Your task to perform on an android device: Search for vegetarian restaurants on Maps Image 0: 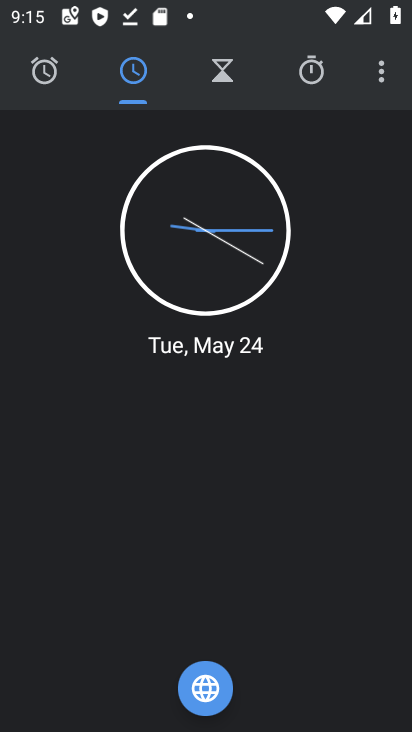
Step 0: press back button
Your task to perform on an android device: Search for vegetarian restaurants on Maps Image 1: 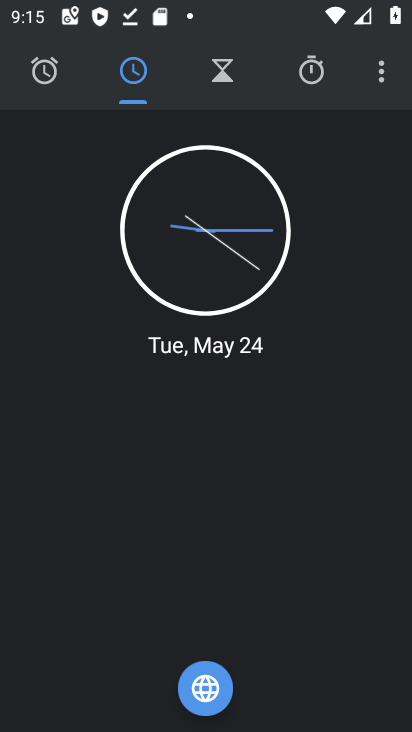
Step 1: press back button
Your task to perform on an android device: Search for vegetarian restaurants on Maps Image 2: 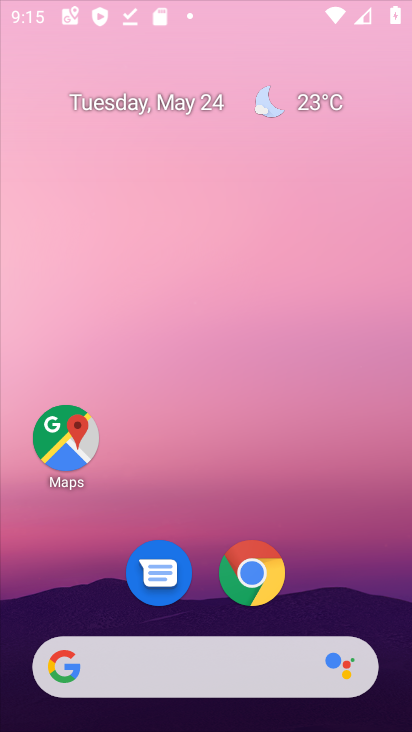
Step 2: press back button
Your task to perform on an android device: Search for vegetarian restaurants on Maps Image 3: 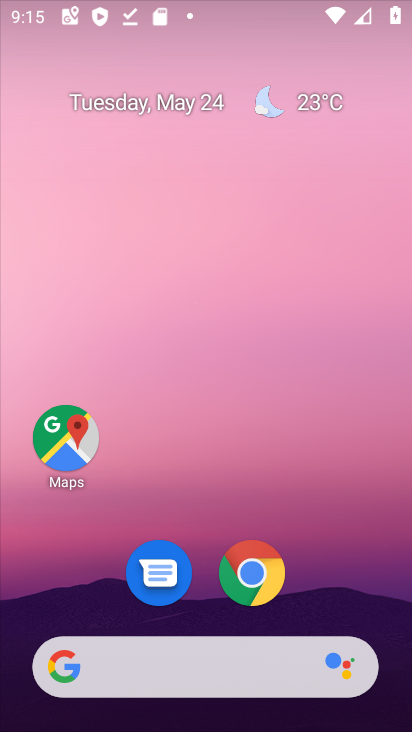
Step 3: press back button
Your task to perform on an android device: Search for vegetarian restaurants on Maps Image 4: 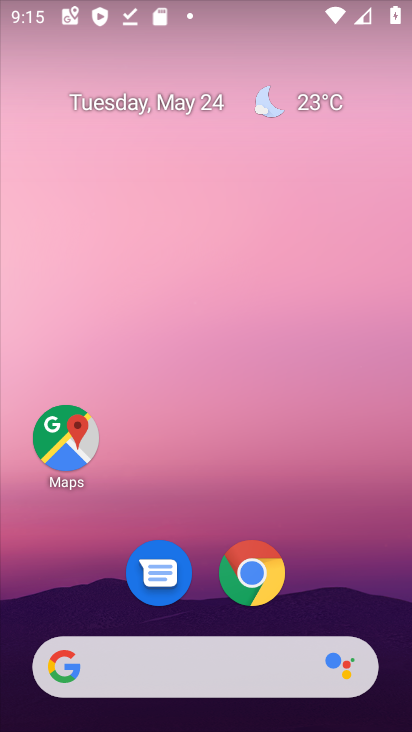
Step 4: drag from (264, 698) to (253, 224)
Your task to perform on an android device: Search for vegetarian restaurants on Maps Image 5: 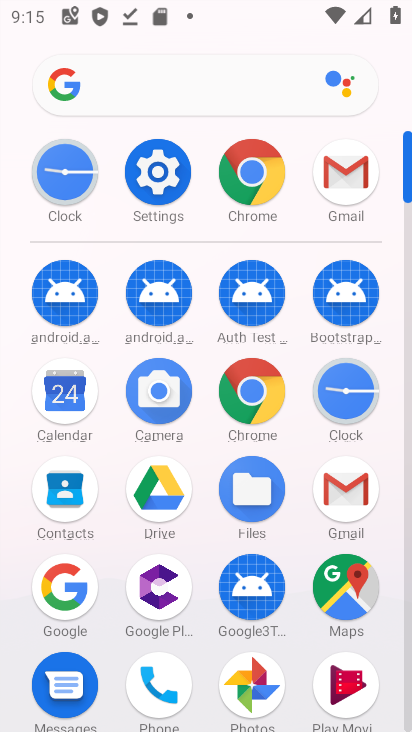
Step 5: click (342, 590)
Your task to perform on an android device: Search for vegetarian restaurants on Maps Image 6: 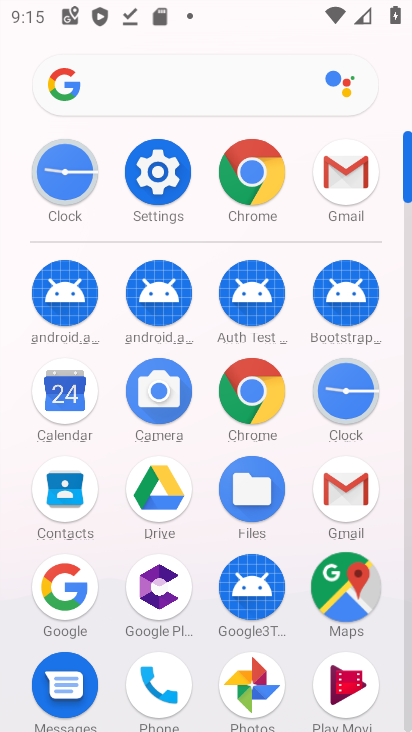
Step 6: click (343, 589)
Your task to perform on an android device: Search for vegetarian restaurants on Maps Image 7: 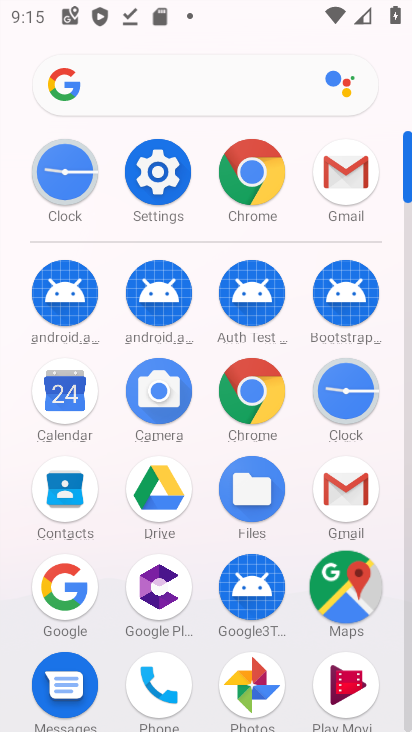
Step 7: click (347, 586)
Your task to perform on an android device: Search for vegetarian restaurants on Maps Image 8: 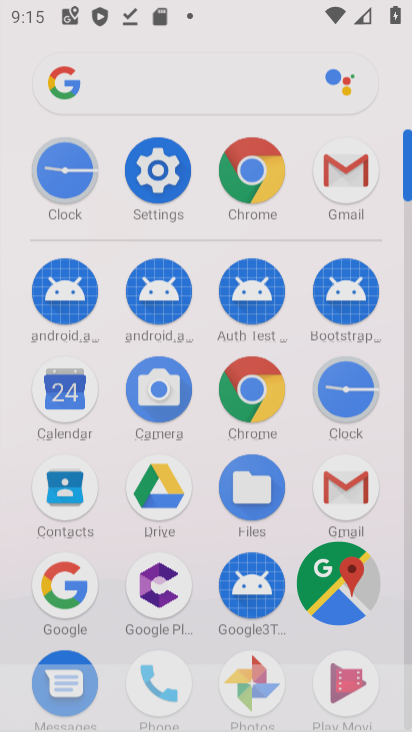
Step 8: click (348, 585)
Your task to perform on an android device: Search for vegetarian restaurants on Maps Image 9: 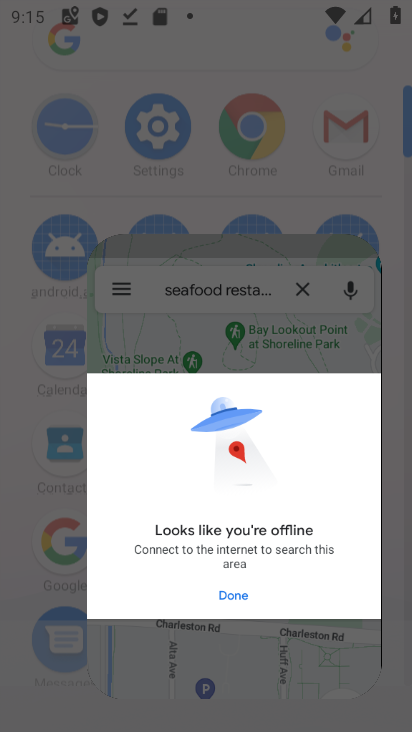
Step 9: click (349, 585)
Your task to perform on an android device: Search for vegetarian restaurants on Maps Image 10: 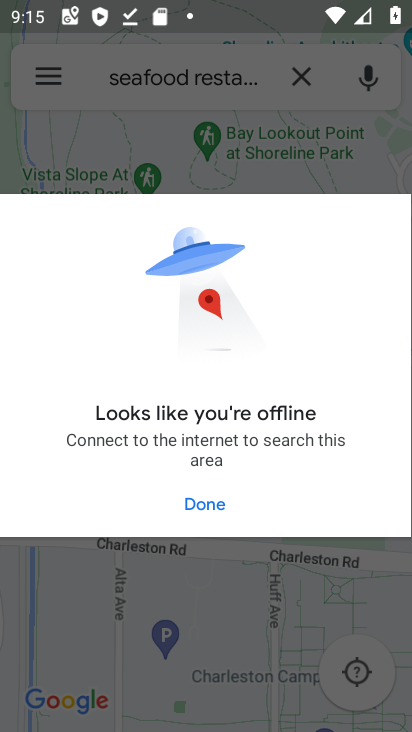
Step 10: click (351, 581)
Your task to perform on an android device: Search for vegetarian restaurants on Maps Image 11: 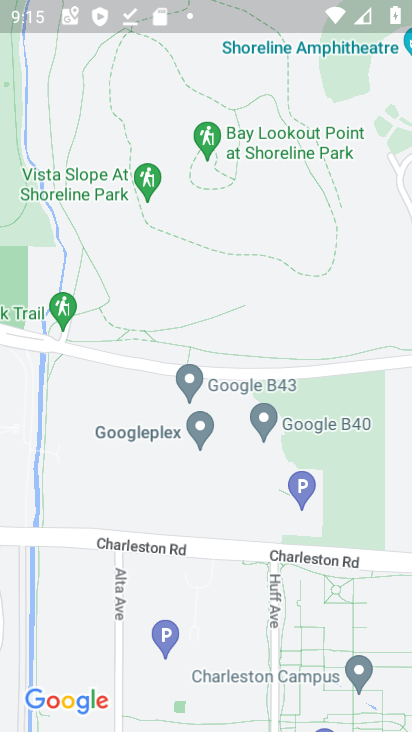
Step 11: drag from (134, 170) to (234, 666)
Your task to perform on an android device: Search for vegetarian restaurants on Maps Image 12: 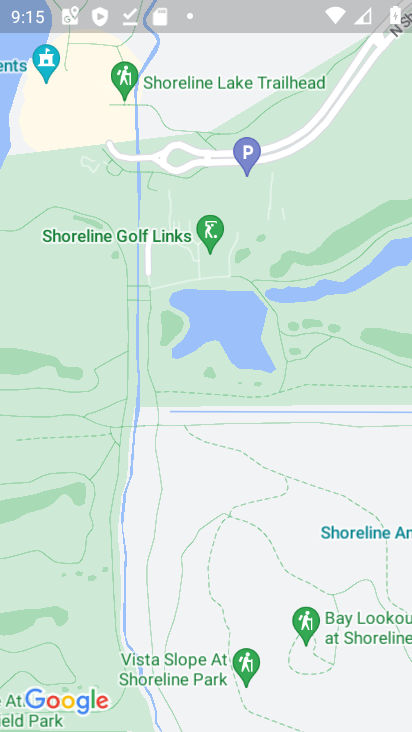
Step 12: drag from (123, 253) to (259, 583)
Your task to perform on an android device: Search for vegetarian restaurants on Maps Image 13: 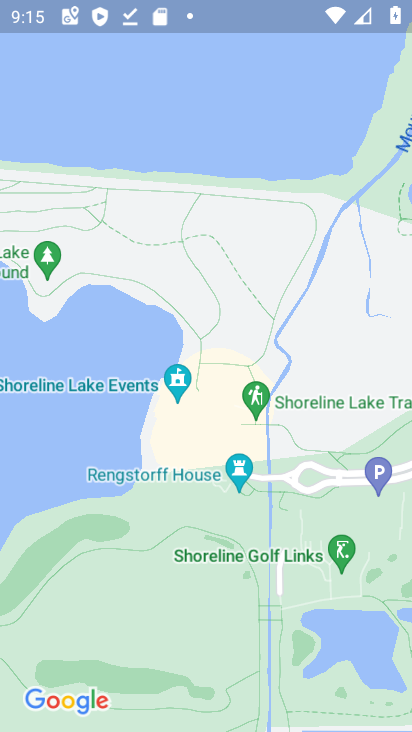
Step 13: drag from (251, 325) to (388, 711)
Your task to perform on an android device: Search for vegetarian restaurants on Maps Image 14: 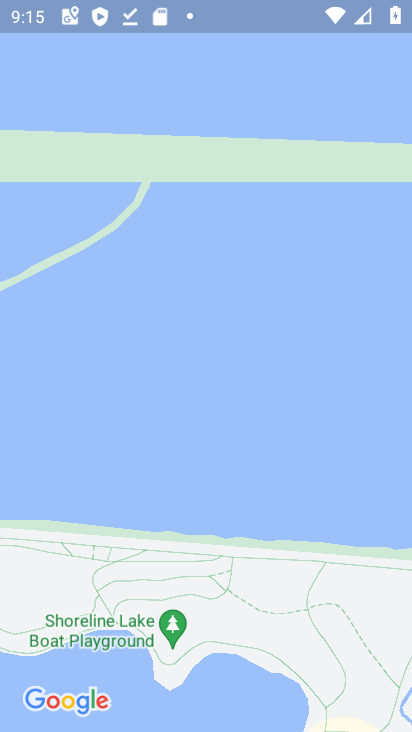
Step 14: drag from (300, 310) to (314, 521)
Your task to perform on an android device: Search for vegetarian restaurants on Maps Image 15: 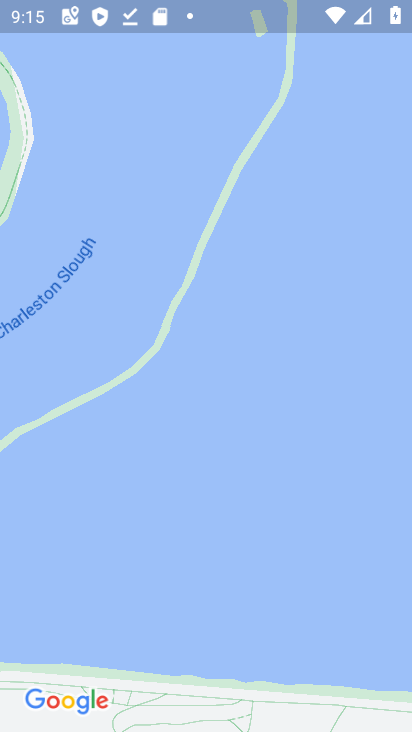
Step 15: drag from (118, 161) to (205, 478)
Your task to perform on an android device: Search for vegetarian restaurants on Maps Image 16: 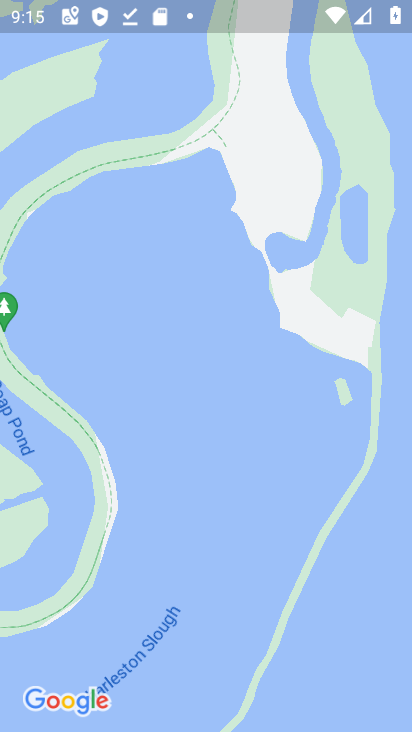
Step 16: drag from (117, 188) to (156, 449)
Your task to perform on an android device: Search for vegetarian restaurants on Maps Image 17: 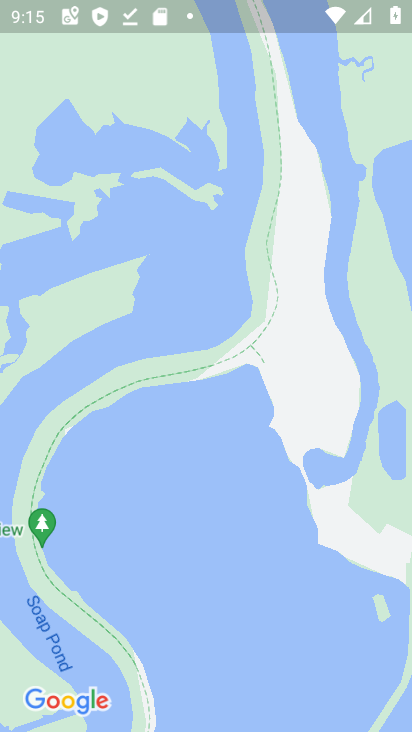
Step 17: drag from (120, 150) to (232, 563)
Your task to perform on an android device: Search for vegetarian restaurants on Maps Image 18: 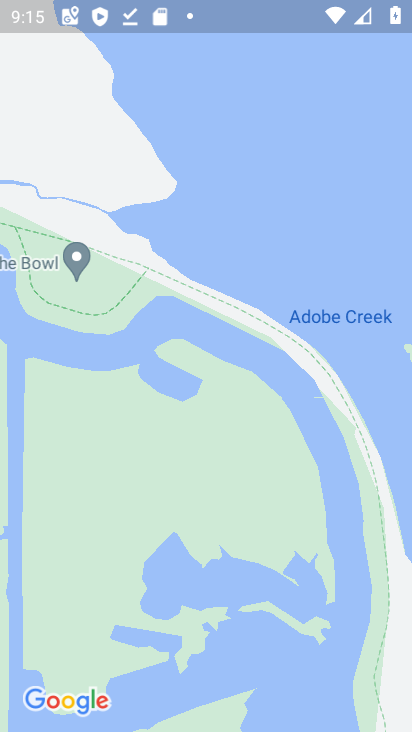
Step 18: drag from (134, 238) to (262, 564)
Your task to perform on an android device: Search for vegetarian restaurants on Maps Image 19: 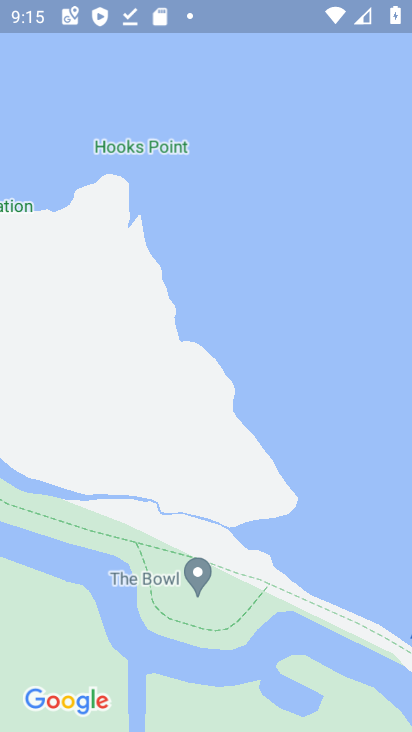
Step 19: drag from (210, 202) to (316, 649)
Your task to perform on an android device: Search for vegetarian restaurants on Maps Image 20: 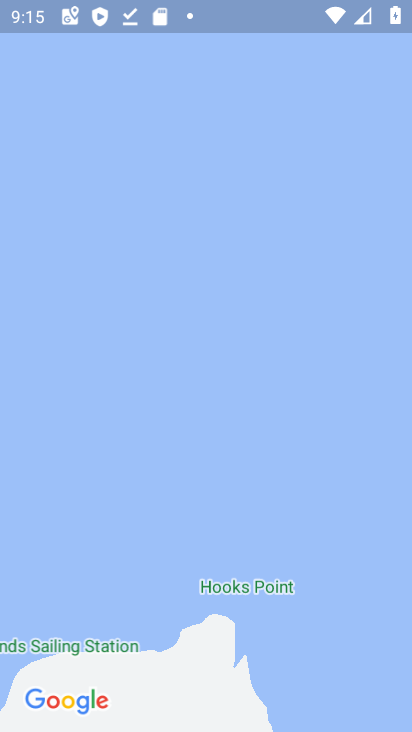
Step 20: drag from (207, 268) to (217, 627)
Your task to perform on an android device: Search for vegetarian restaurants on Maps Image 21: 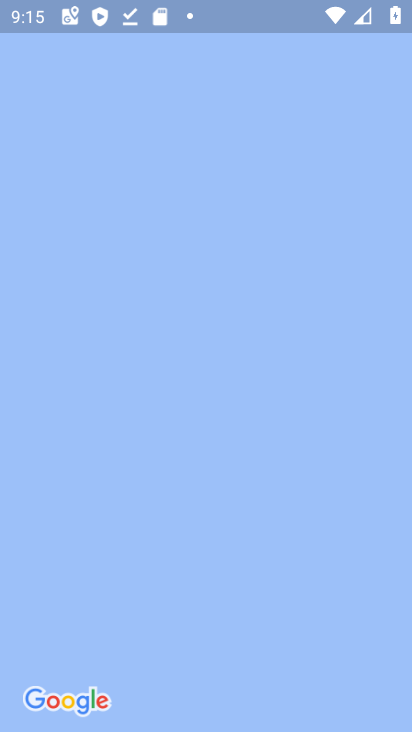
Step 21: press back button
Your task to perform on an android device: Search for vegetarian restaurants on Maps Image 22: 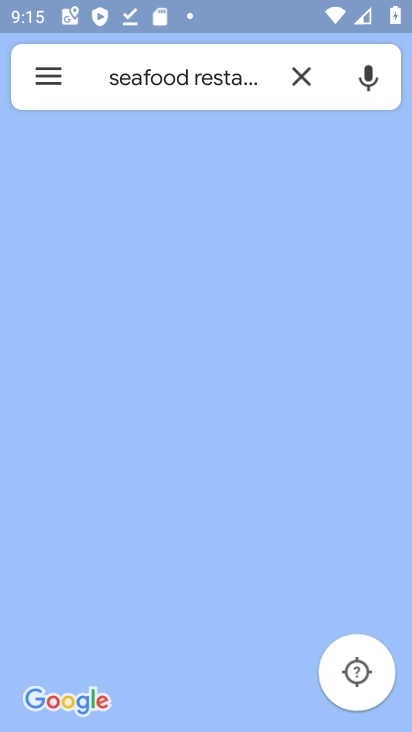
Step 22: click (107, 53)
Your task to perform on an android device: Search for vegetarian restaurants on Maps Image 23: 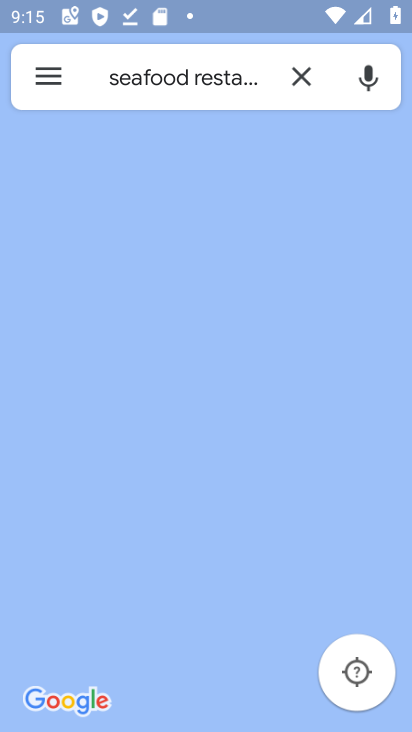
Step 23: click (120, 60)
Your task to perform on an android device: Search for vegetarian restaurants on Maps Image 24: 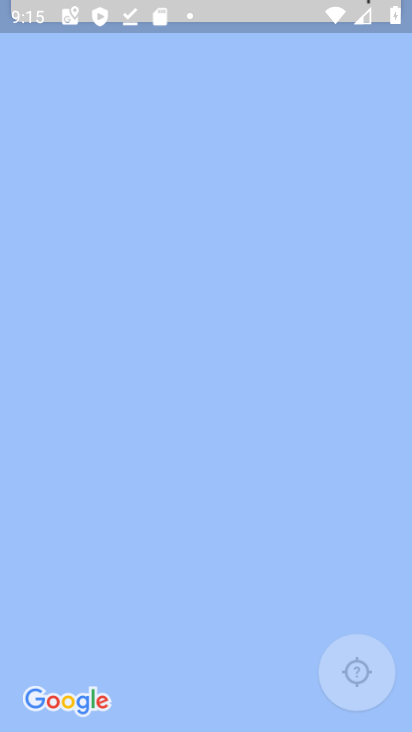
Step 24: click (125, 70)
Your task to perform on an android device: Search for vegetarian restaurants on Maps Image 25: 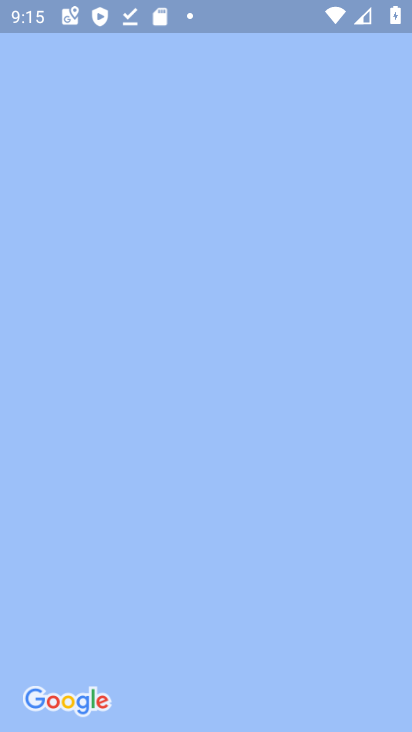
Step 25: click (125, 70)
Your task to perform on an android device: Search for vegetarian restaurants on Maps Image 26: 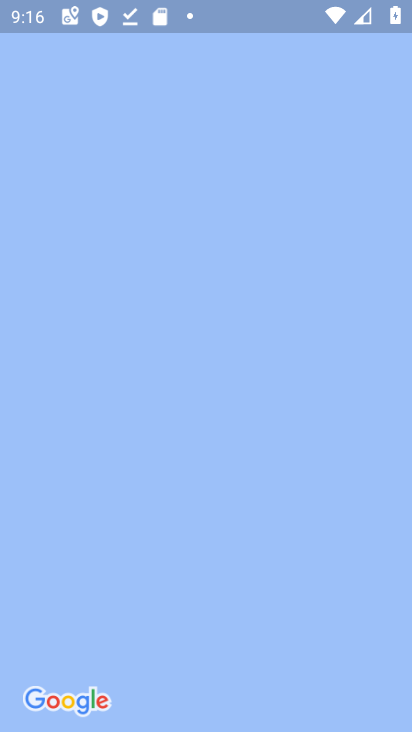
Step 26: press back button
Your task to perform on an android device: Search for vegetarian restaurants on Maps Image 27: 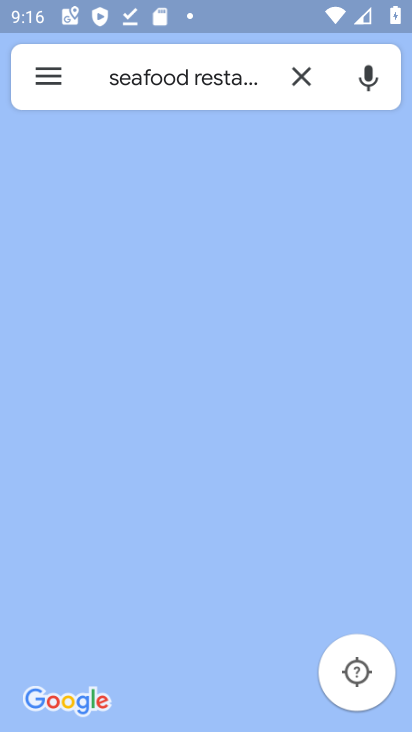
Step 27: click (98, 61)
Your task to perform on an android device: Search for vegetarian restaurants on Maps Image 28: 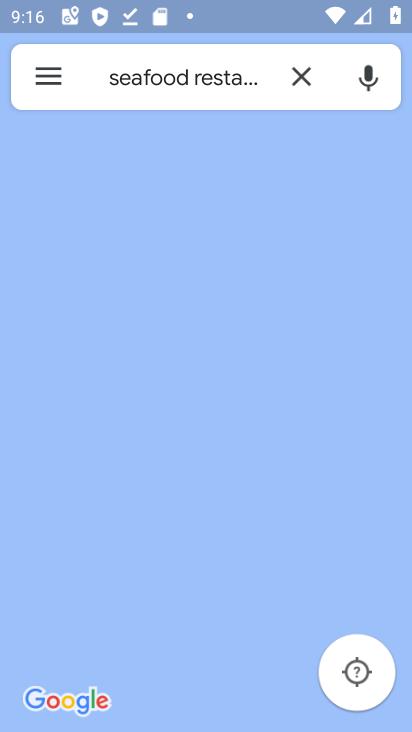
Step 28: click (131, 83)
Your task to perform on an android device: Search for vegetarian restaurants on Maps Image 29: 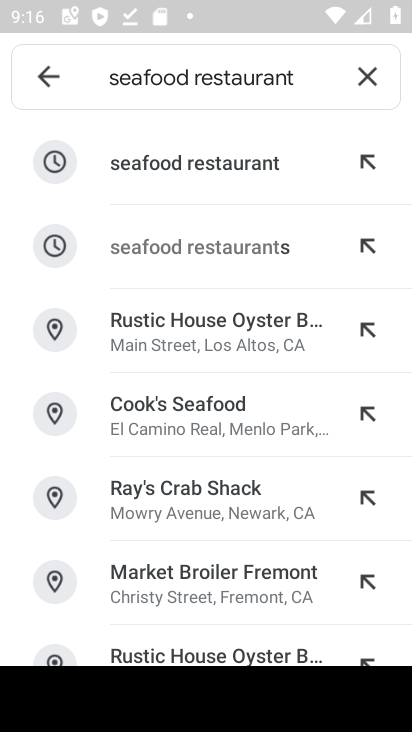
Step 29: click (366, 67)
Your task to perform on an android device: Search for vegetarian restaurants on Maps Image 30: 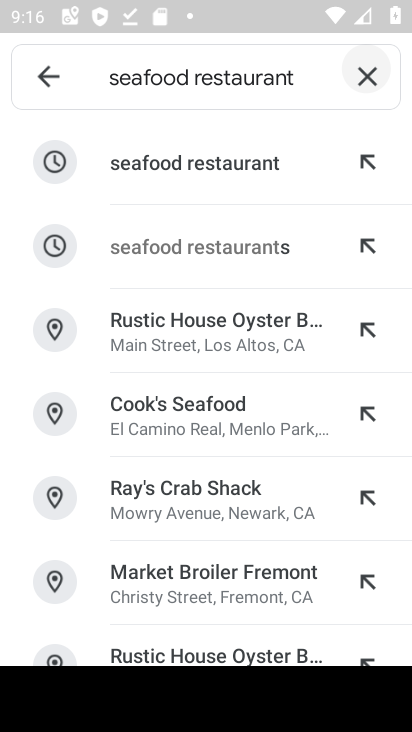
Step 30: click (367, 68)
Your task to perform on an android device: Search for vegetarian restaurants on Maps Image 31: 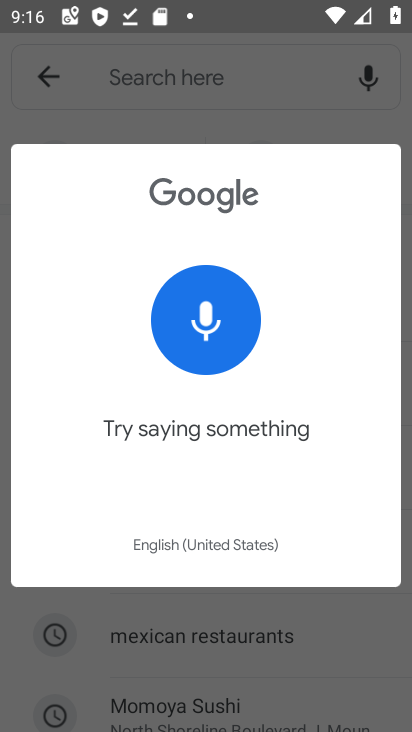
Step 31: press back button
Your task to perform on an android device: Search for vegetarian restaurants on Maps Image 32: 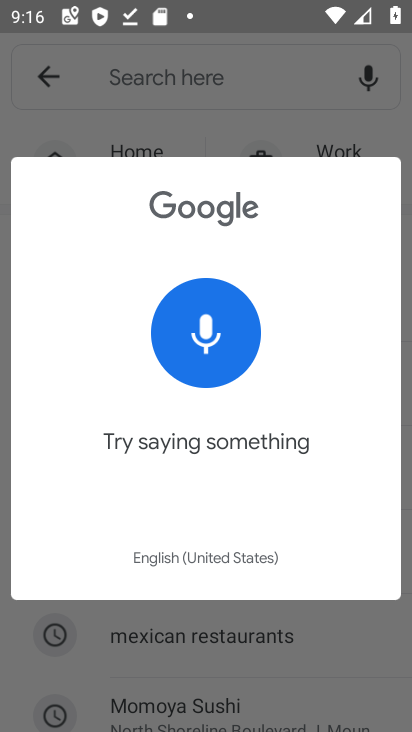
Step 32: press back button
Your task to perform on an android device: Search for vegetarian restaurants on Maps Image 33: 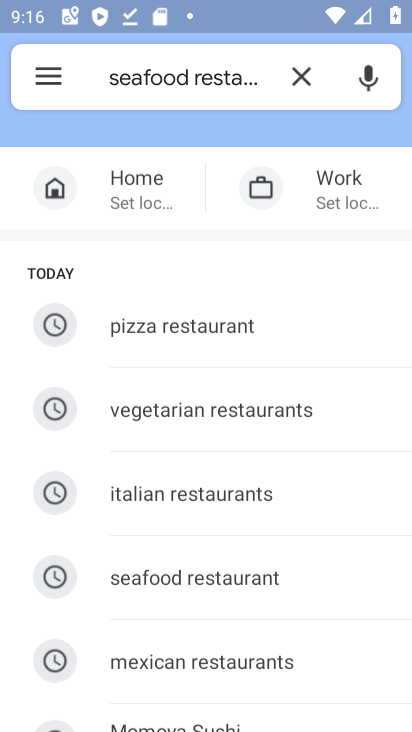
Step 33: press back button
Your task to perform on an android device: Search for vegetarian restaurants on Maps Image 34: 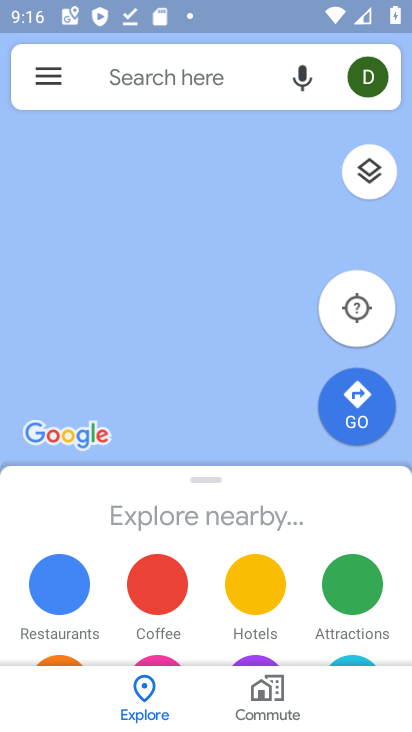
Step 34: click (89, 70)
Your task to perform on an android device: Search for vegetarian restaurants on Maps Image 35: 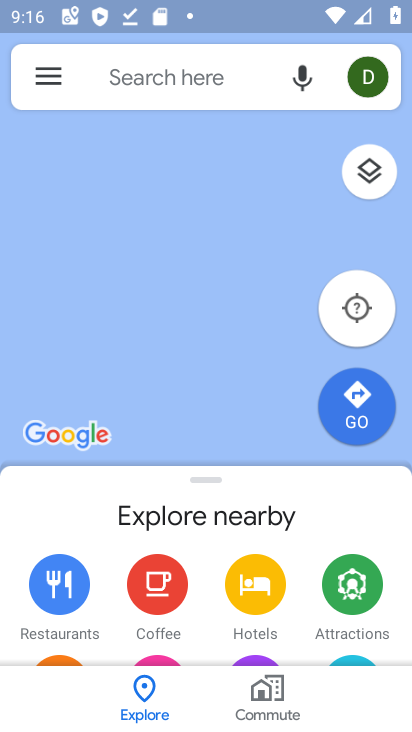
Step 35: click (104, 79)
Your task to perform on an android device: Search for vegetarian restaurants on Maps Image 36: 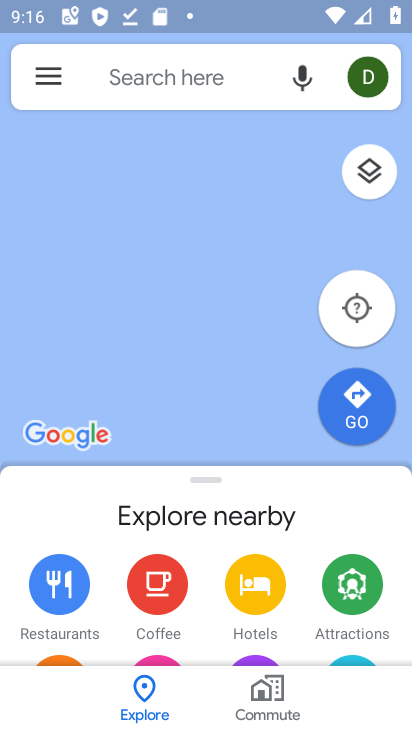
Step 36: click (109, 83)
Your task to perform on an android device: Search for vegetarian restaurants on Maps Image 37: 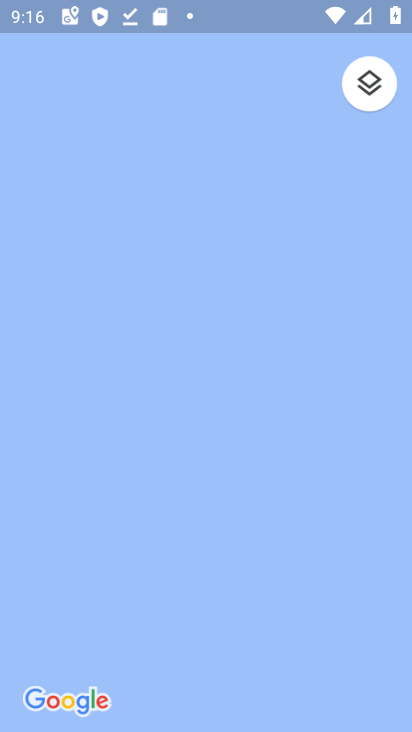
Step 37: task complete